Your task to perform on an android device: open app "Calculator" Image 0: 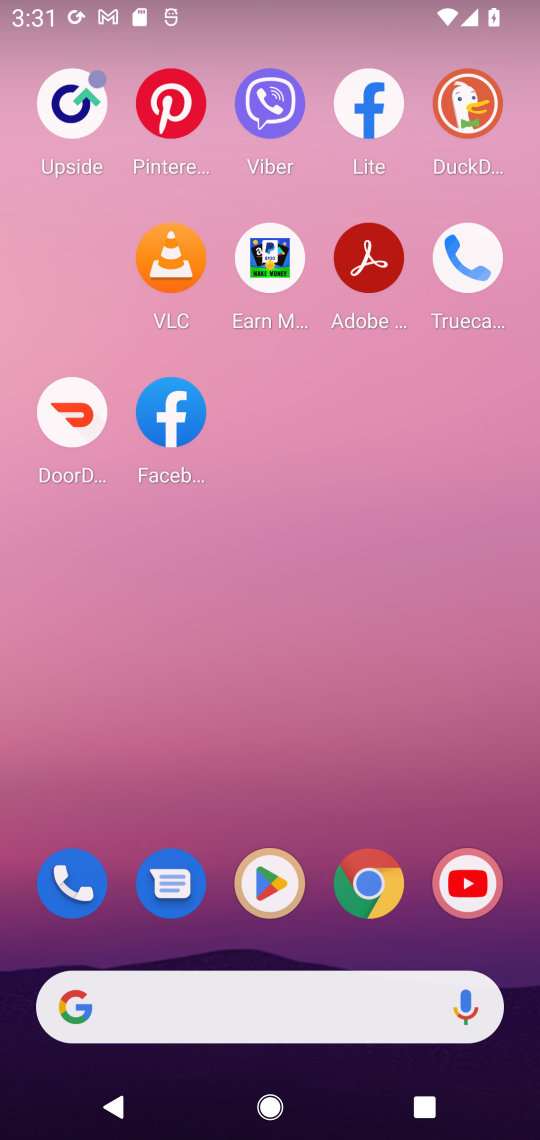
Step 0: press home button
Your task to perform on an android device: open app "Calculator" Image 1: 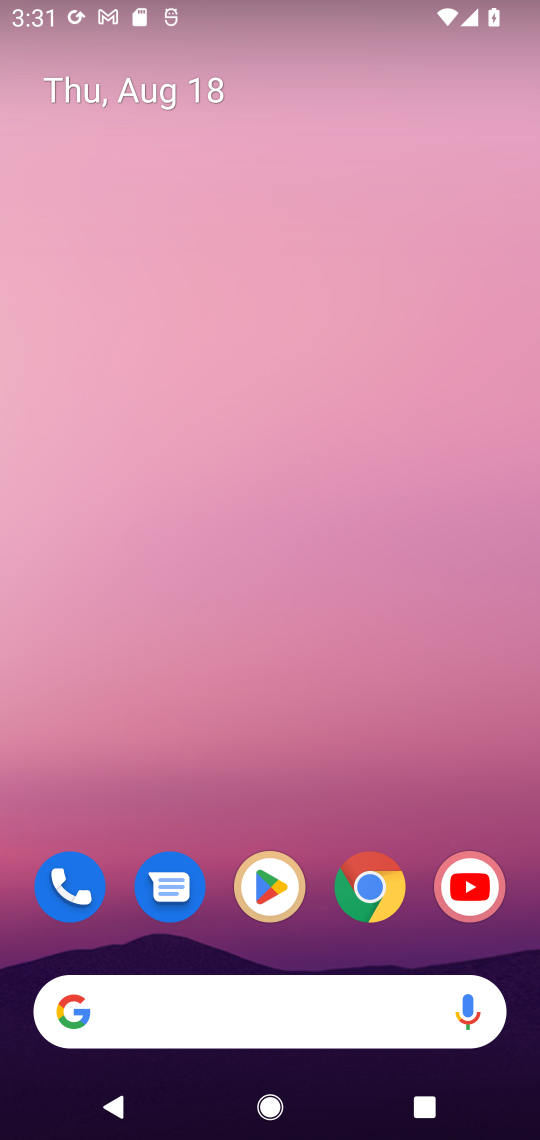
Step 1: click (264, 876)
Your task to perform on an android device: open app "Calculator" Image 2: 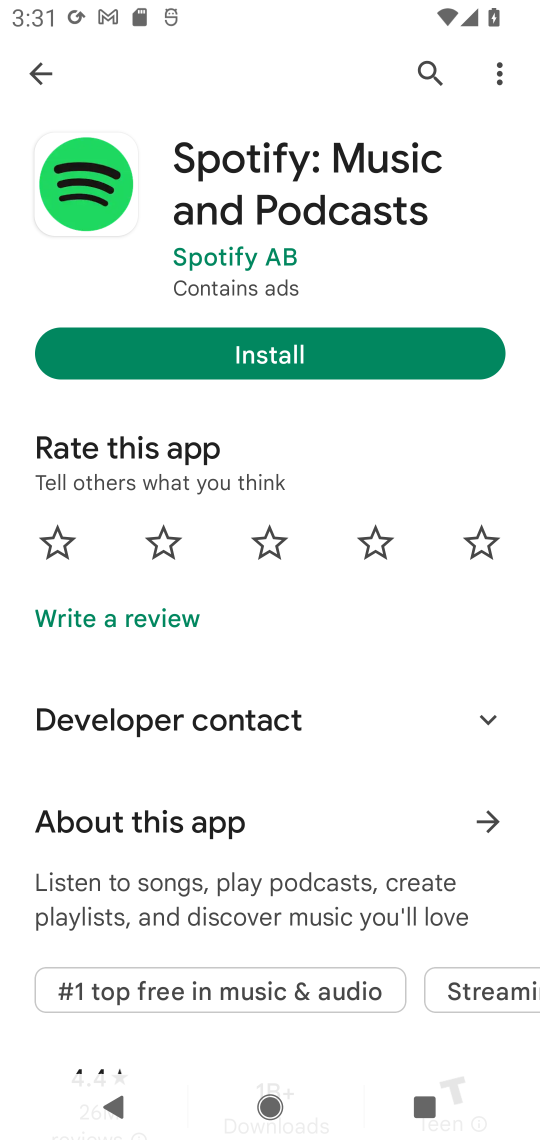
Step 2: click (27, 61)
Your task to perform on an android device: open app "Calculator" Image 3: 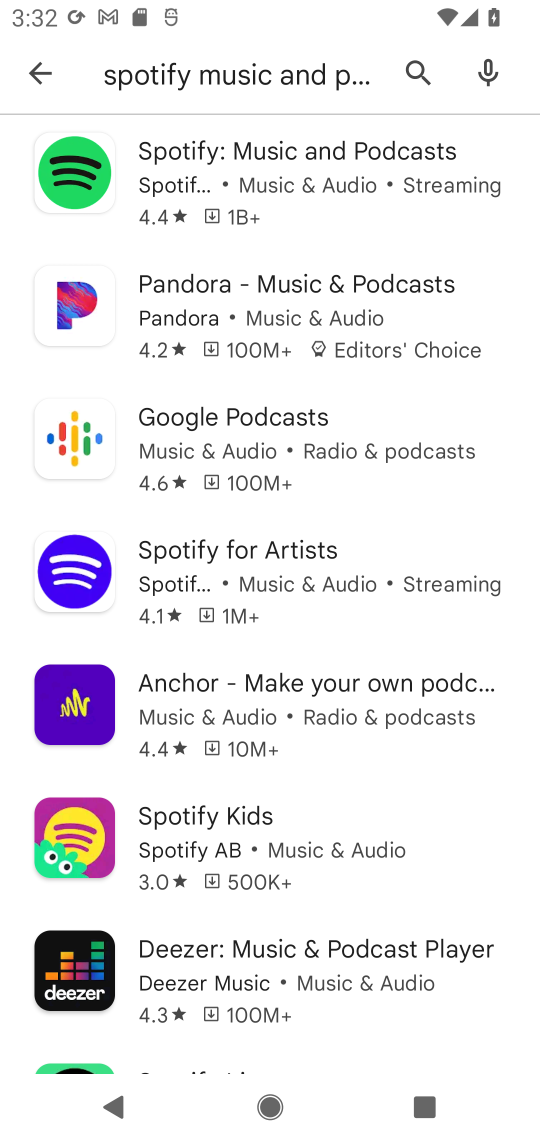
Step 3: click (406, 60)
Your task to perform on an android device: open app "Calculator" Image 4: 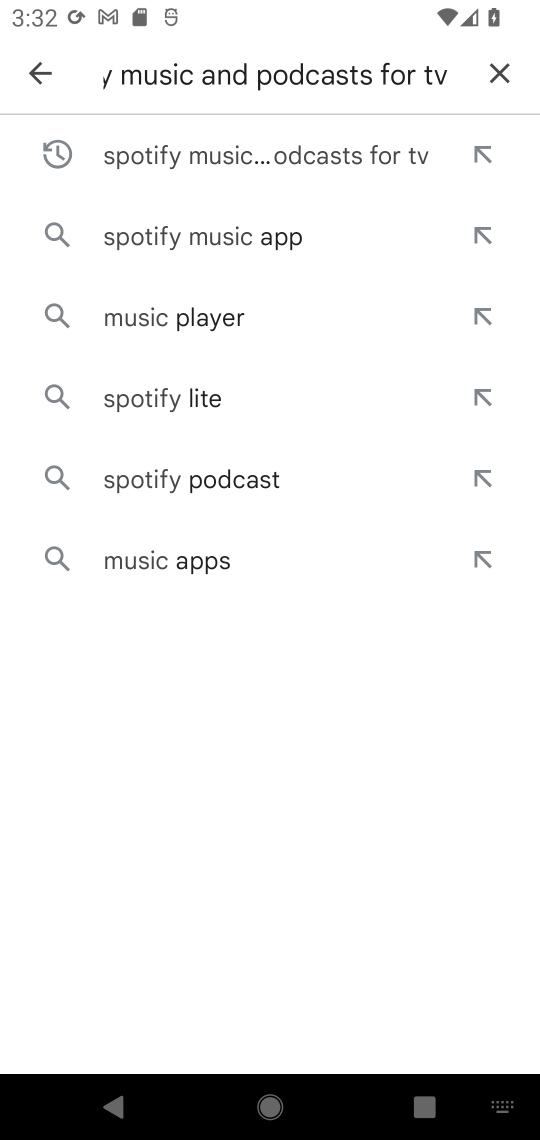
Step 4: click (489, 80)
Your task to perform on an android device: open app "Calculator" Image 5: 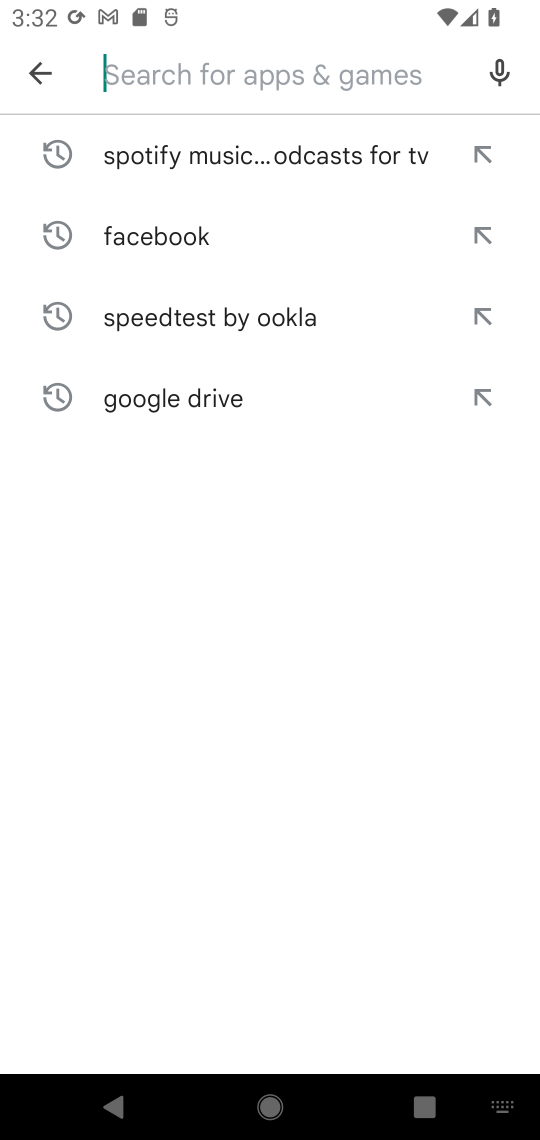
Step 5: type "Calculator"
Your task to perform on an android device: open app "Calculator" Image 6: 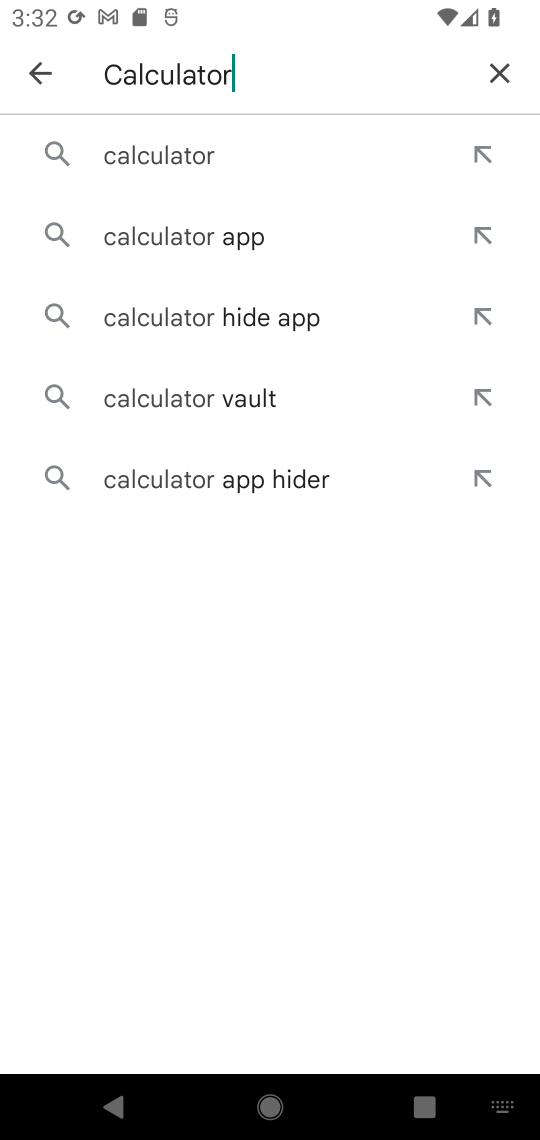
Step 6: click (238, 142)
Your task to perform on an android device: open app "Calculator" Image 7: 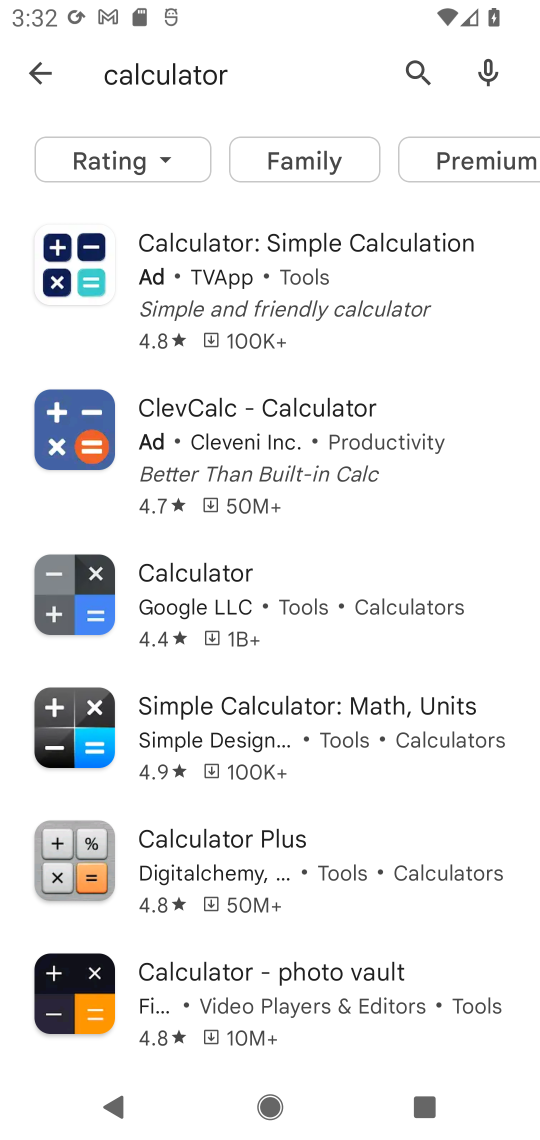
Step 7: click (200, 244)
Your task to perform on an android device: open app "Calculator" Image 8: 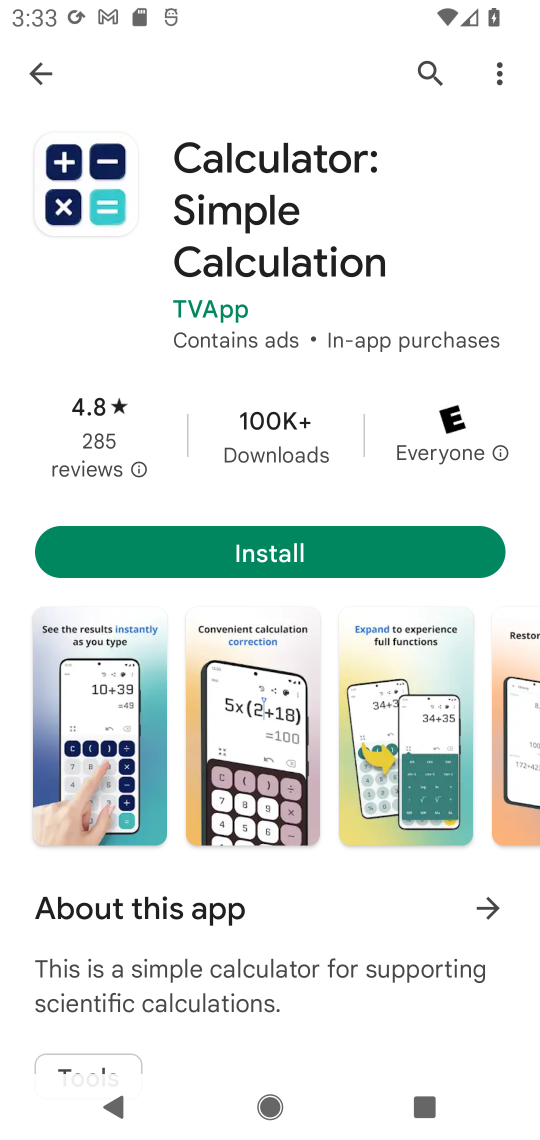
Step 8: task complete